Your task to perform on an android device: check the backup settings in the google photos Image 0: 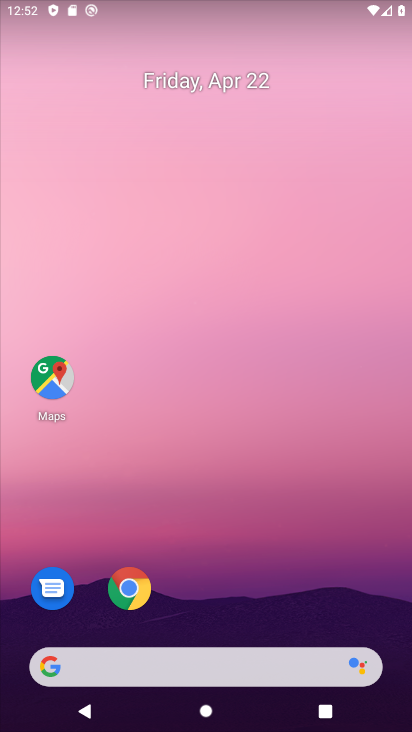
Step 0: drag from (343, 581) to (329, 122)
Your task to perform on an android device: check the backup settings in the google photos Image 1: 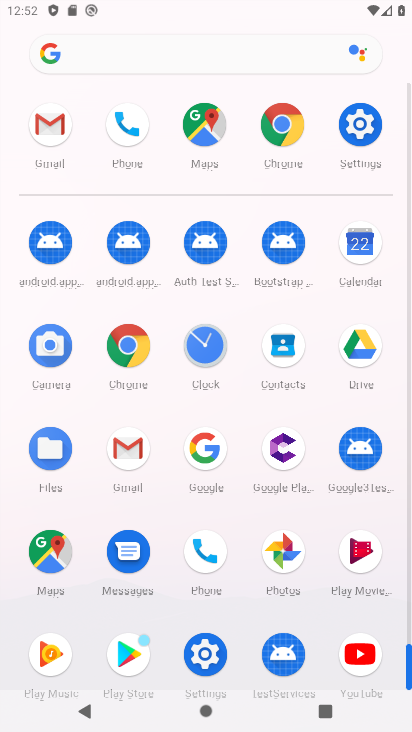
Step 1: click (278, 549)
Your task to perform on an android device: check the backup settings in the google photos Image 2: 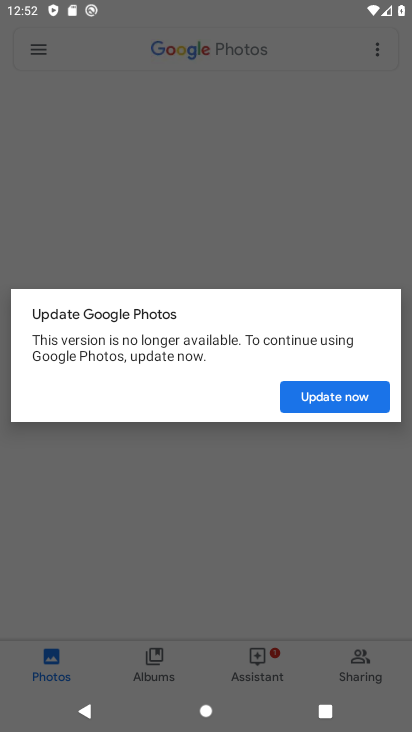
Step 2: click (321, 396)
Your task to perform on an android device: check the backup settings in the google photos Image 3: 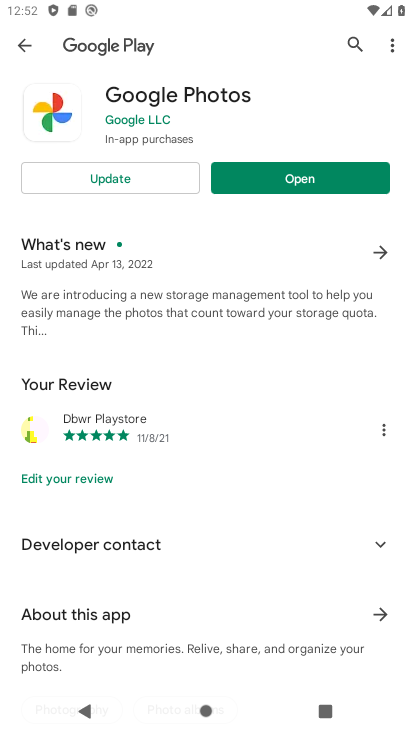
Step 3: click (144, 176)
Your task to perform on an android device: check the backup settings in the google photos Image 4: 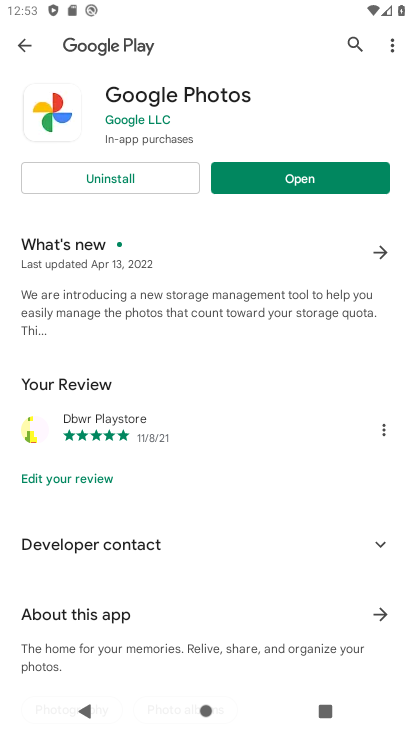
Step 4: click (250, 176)
Your task to perform on an android device: check the backup settings in the google photos Image 5: 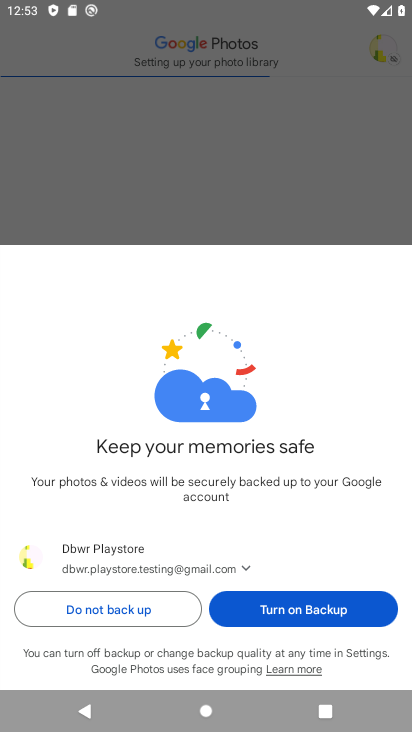
Step 5: click (110, 605)
Your task to perform on an android device: check the backup settings in the google photos Image 6: 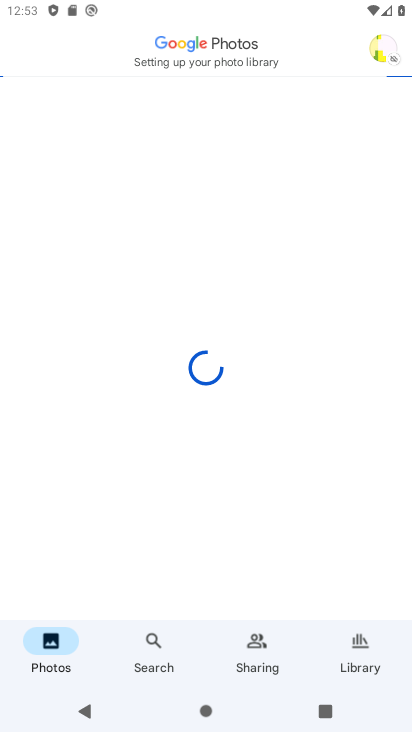
Step 6: click (371, 48)
Your task to perform on an android device: check the backup settings in the google photos Image 7: 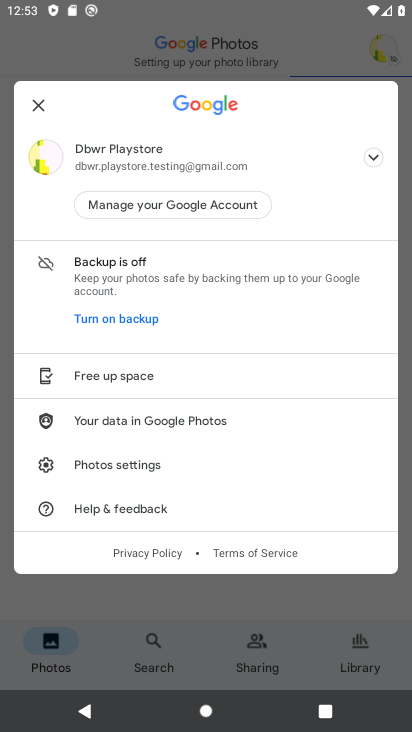
Step 7: click (114, 460)
Your task to perform on an android device: check the backup settings in the google photos Image 8: 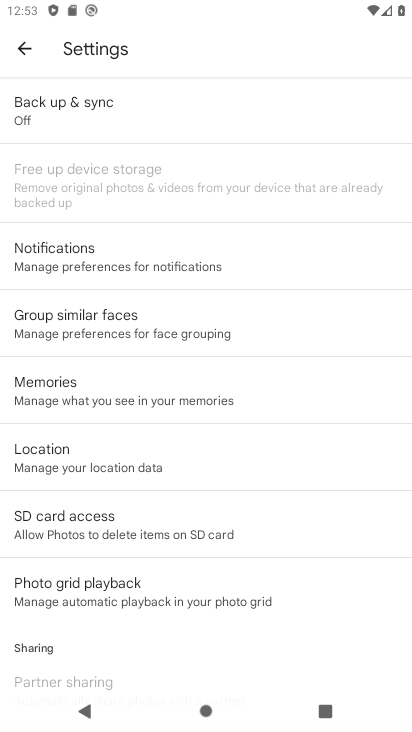
Step 8: click (53, 120)
Your task to perform on an android device: check the backup settings in the google photos Image 9: 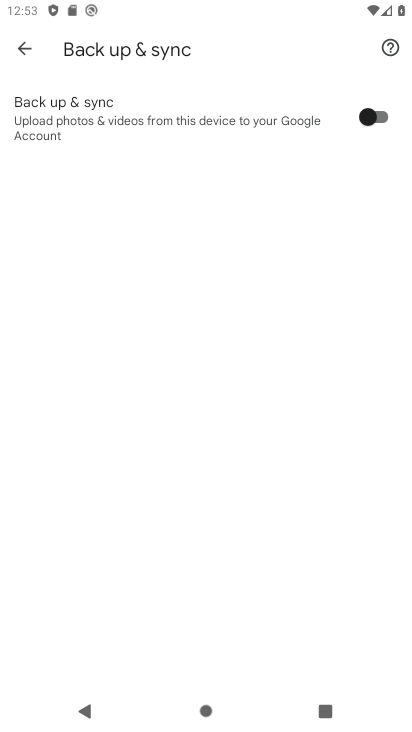
Step 9: task complete